Your task to perform on an android device: turn on data saver in the chrome app Image 0: 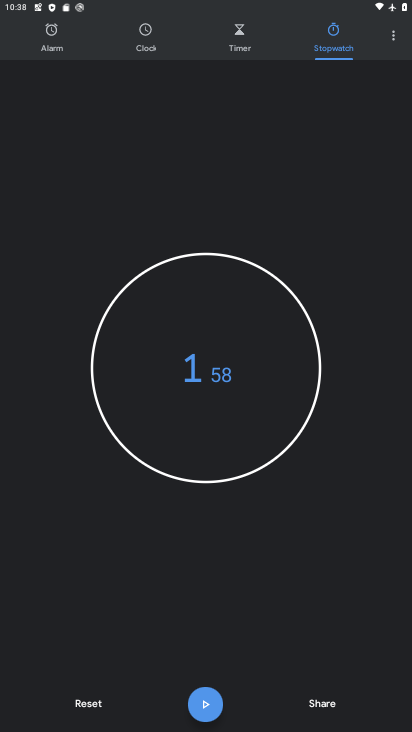
Step 0: press home button
Your task to perform on an android device: turn on data saver in the chrome app Image 1: 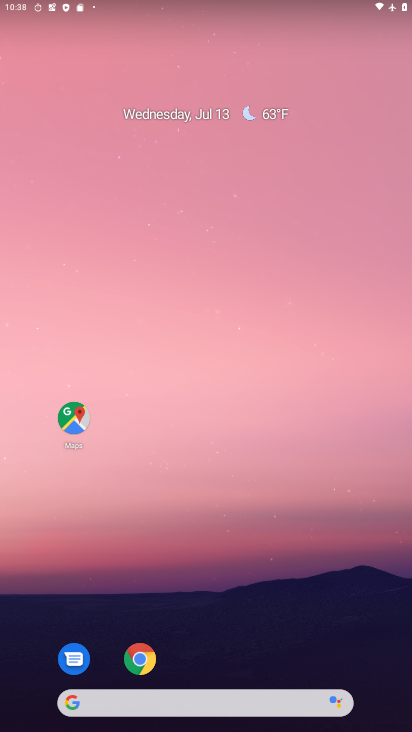
Step 1: drag from (338, 628) to (285, 363)
Your task to perform on an android device: turn on data saver in the chrome app Image 2: 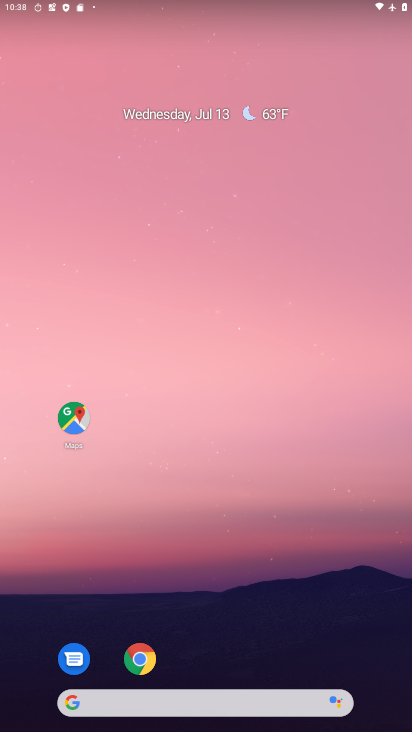
Step 2: drag from (293, 627) to (252, 133)
Your task to perform on an android device: turn on data saver in the chrome app Image 3: 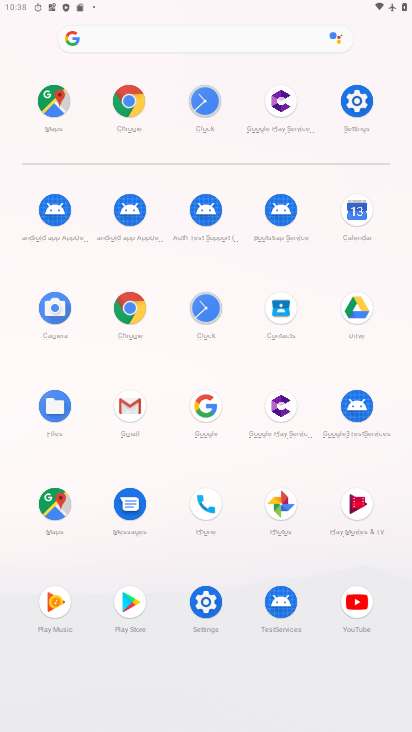
Step 3: click (135, 306)
Your task to perform on an android device: turn on data saver in the chrome app Image 4: 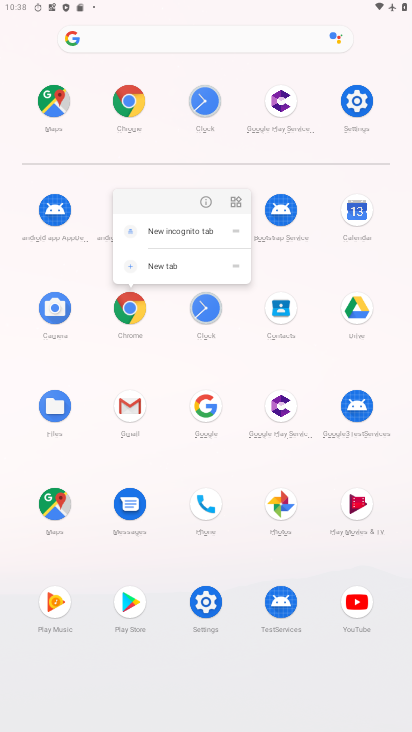
Step 4: click (127, 309)
Your task to perform on an android device: turn on data saver in the chrome app Image 5: 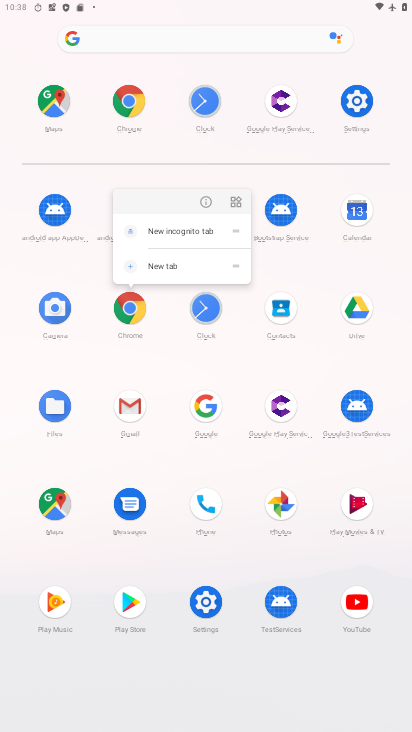
Step 5: click (134, 302)
Your task to perform on an android device: turn on data saver in the chrome app Image 6: 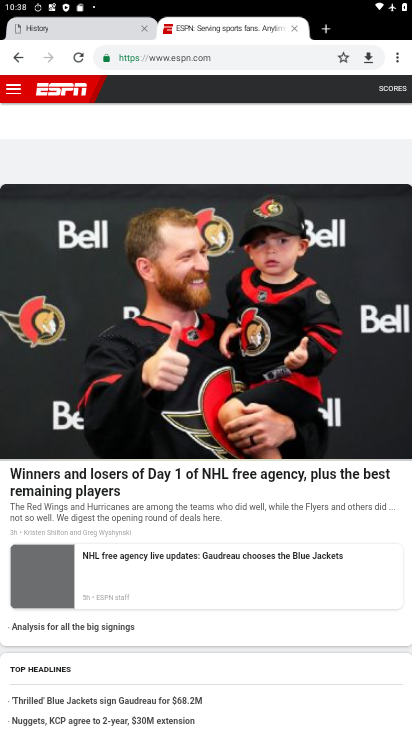
Step 6: drag from (396, 60) to (270, 375)
Your task to perform on an android device: turn on data saver in the chrome app Image 7: 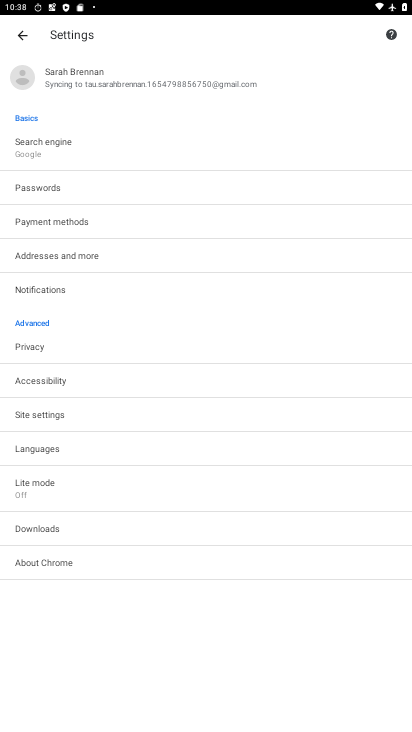
Step 7: click (58, 495)
Your task to perform on an android device: turn on data saver in the chrome app Image 8: 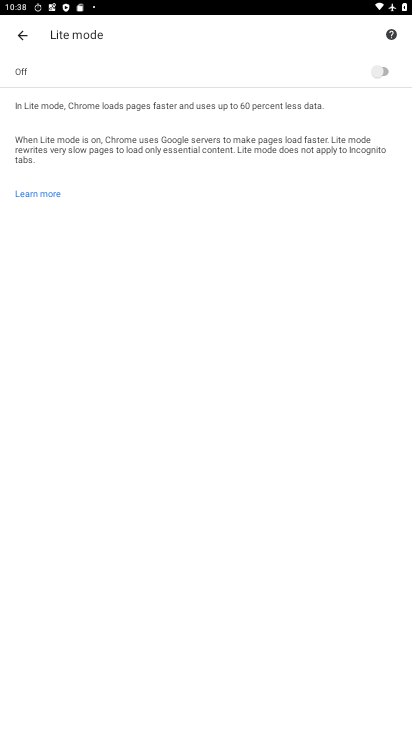
Step 8: click (383, 68)
Your task to perform on an android device: turn on data saver in the chrome app Image 9: 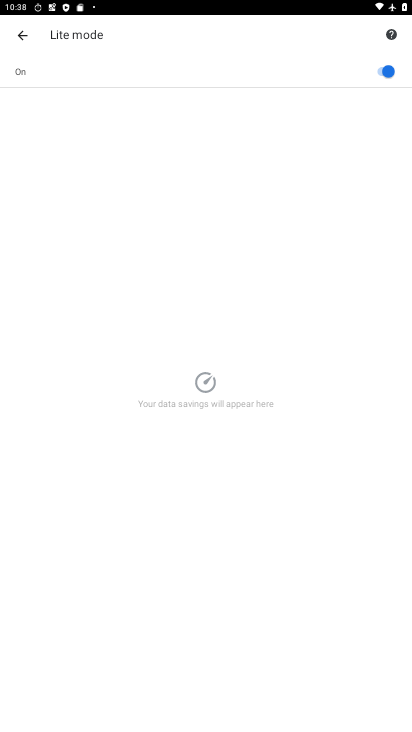
Step 9: task complete